Your task to perform on an android device: turn pop-ups off in chrome Image 0: 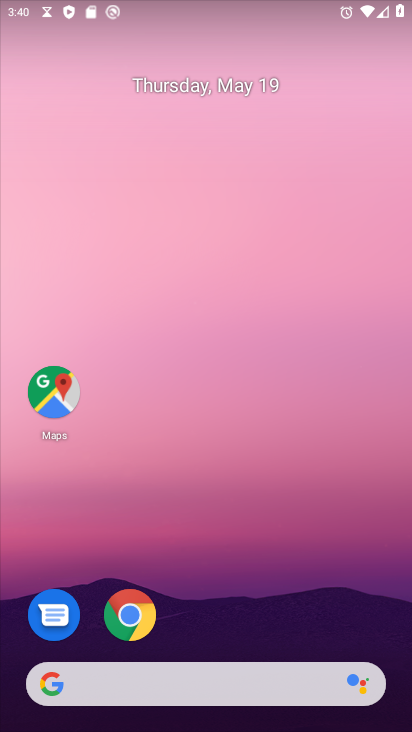
Step 0: drag from (201, 284) to (175, 7)
Your task to perform on an android device: turn pop-ups off in chrome Image 1: 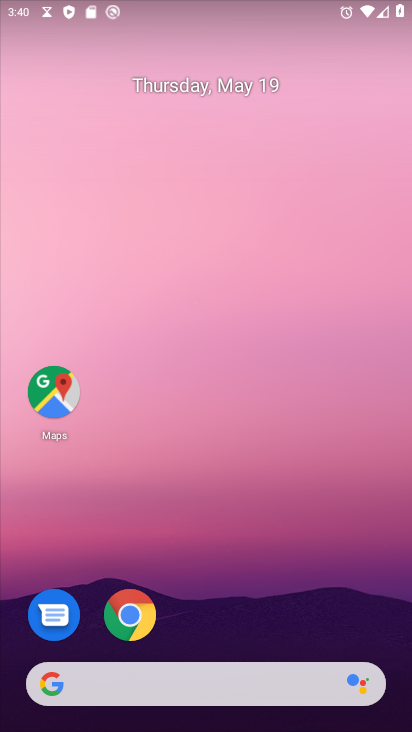
Step 1: drag from (267, 590) to (224, 20)
Your task to perform on an android device: turn pop-ups off in chrome Image 2: 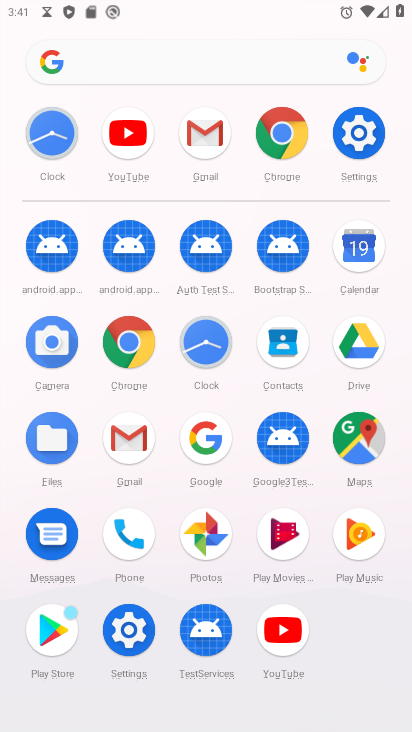
Step 2: click (284, 134)
Your task to perform on an android device: turn pop-ups off in chrome Image 3: 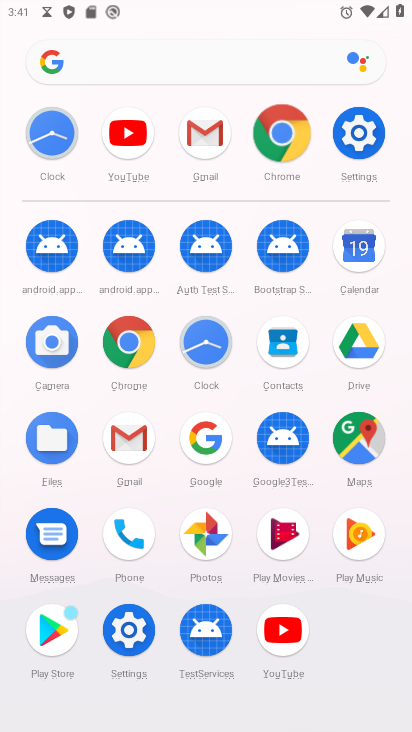
Step 3: click (285, 135)
Your task to perform on an android device: turn pop-ups off in chrome Image 4: 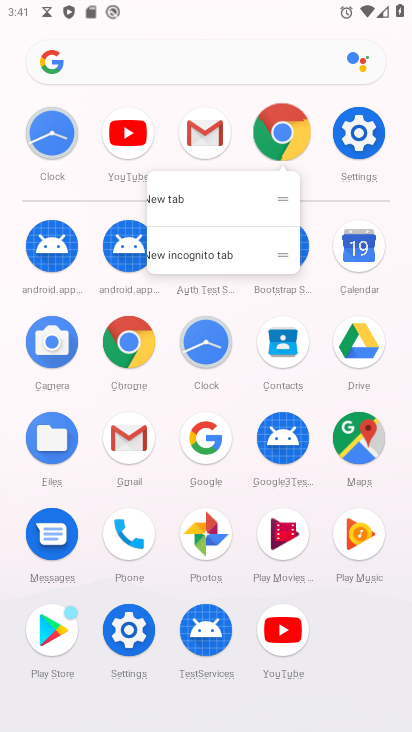
Step 4: click (285, 135)
Your task to perform on an android device: turn pop-ups off in chrome Image 5: 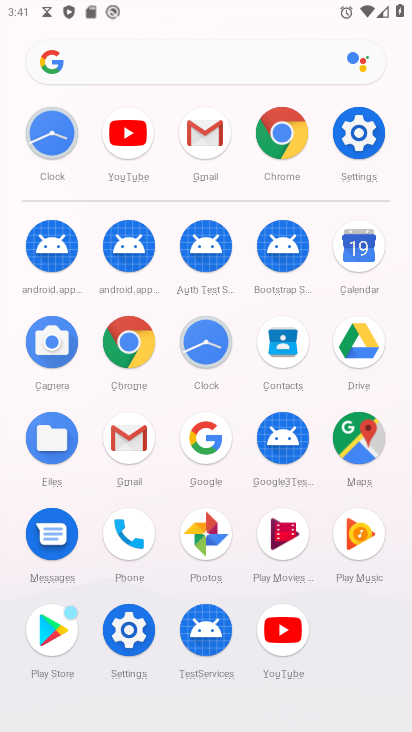
Step 5: click (285, 135)
Your task to perform on an android device: turn pop-ups off in chrome Image 6: 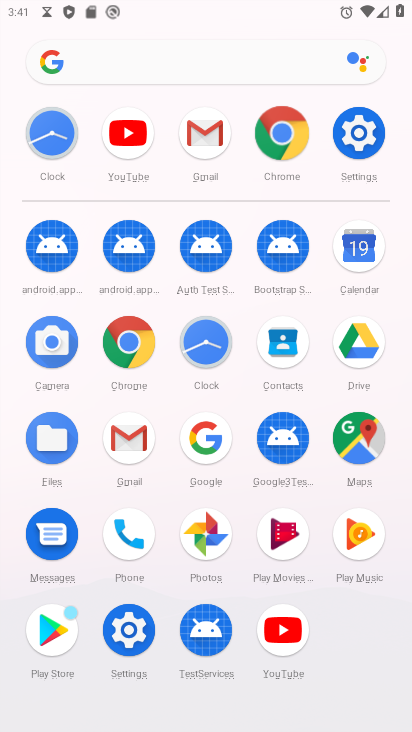
Step 6: click (287, 136)
Your task to perform on an android device: turn pop-ups off in chrome Image 7: 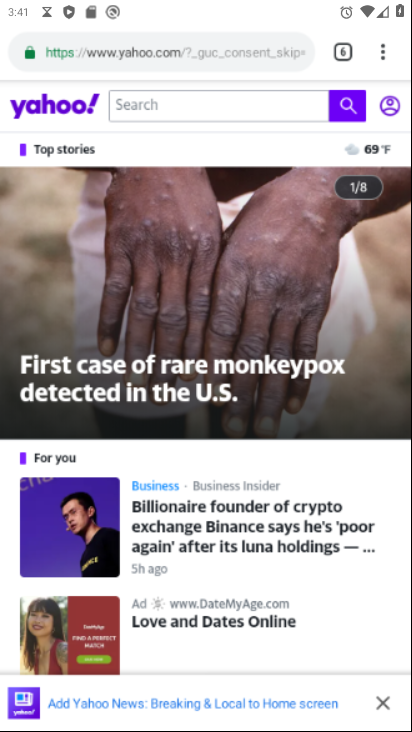
Step 7: click (287, 136)
Your task to perform on an android device: turn pop-ups off in chrome Image 8: 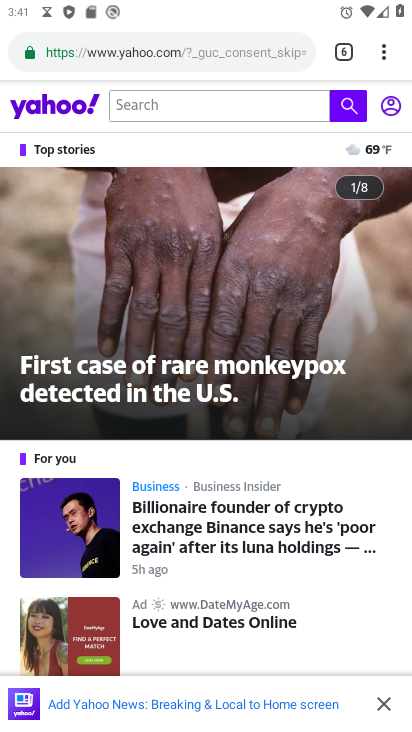
Step 8: drag from (382, 58) to (185, 615)
Your task to perform on an android device: turn pop-ups off in chrome Image 9: 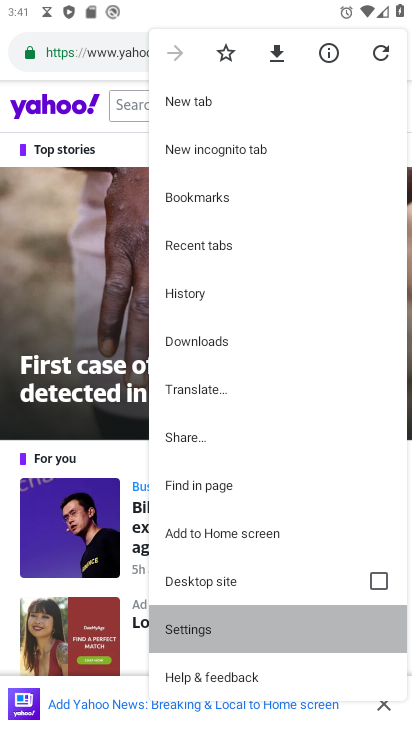
Step 9: click (185, 621)
Your task to perform on an android device: turn pop-ups off in chrome Image 10: 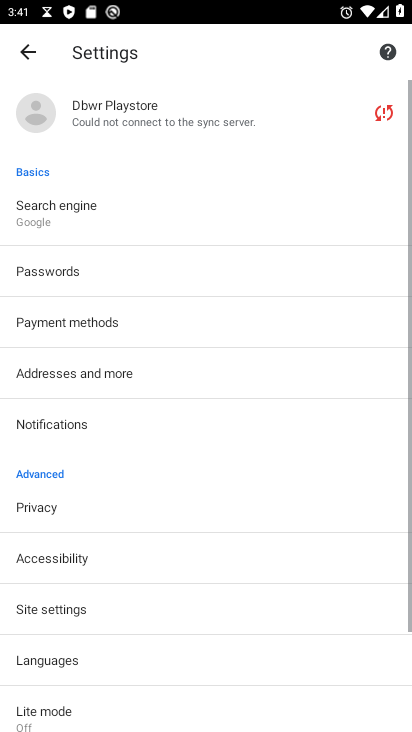
Step 10: drag from (72, 511) to (115, 109)
Your task to perform on an android device: turn pop-ups off in chrome Image 11: 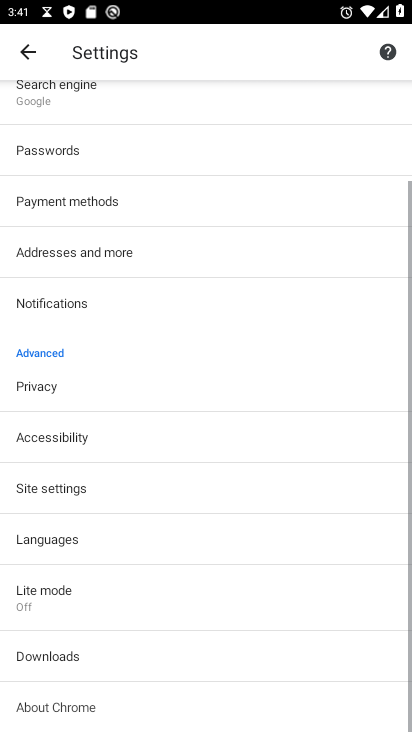
Step 11: drag from (146, 488) to (144, 9)
Your task to perform on an android device: turn pop-ups off in chrome Image 12: 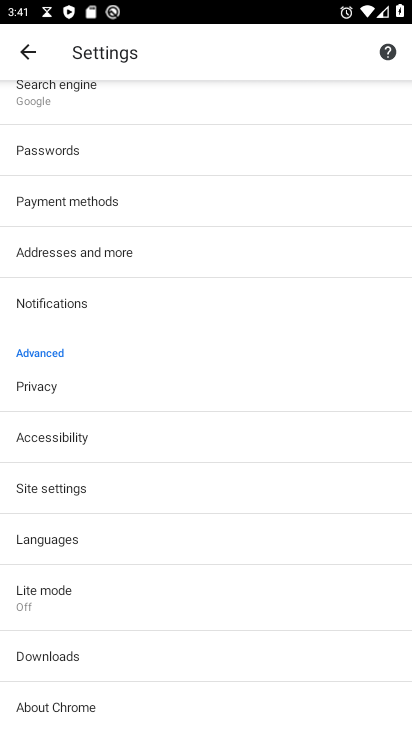
Step 12: click (47, 483)
Your task to perform on an android device: turn pop-ups off in chrome Image 13: 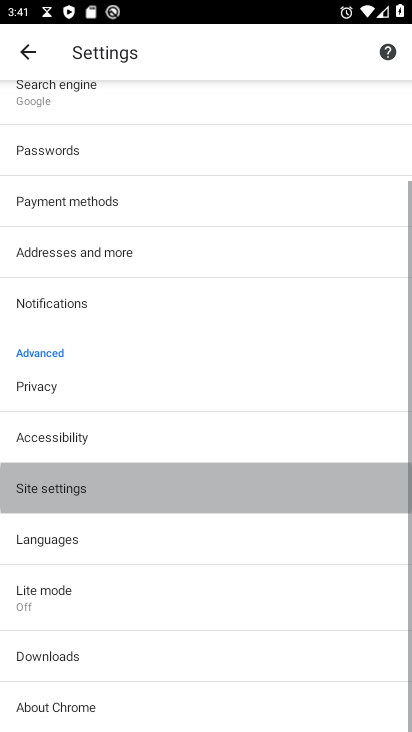
Step 13: click (46, 484)
Your task to perform on an android device: turn pop-ups off in chrome Image 14: 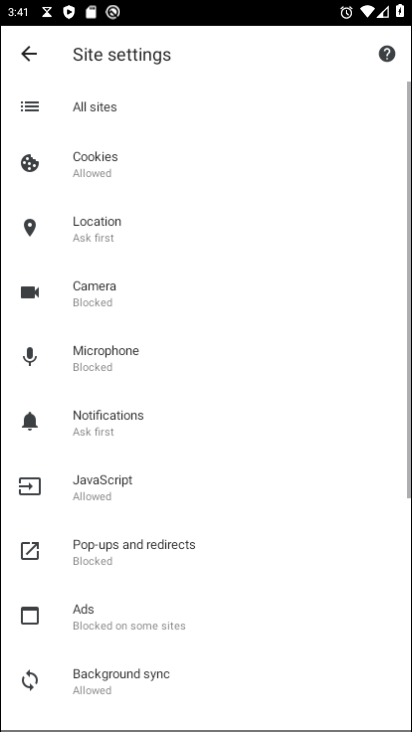
Step 14: click (46, 484)
Your task to perform on an android device: turn pop-ups off in chrome Image 15: 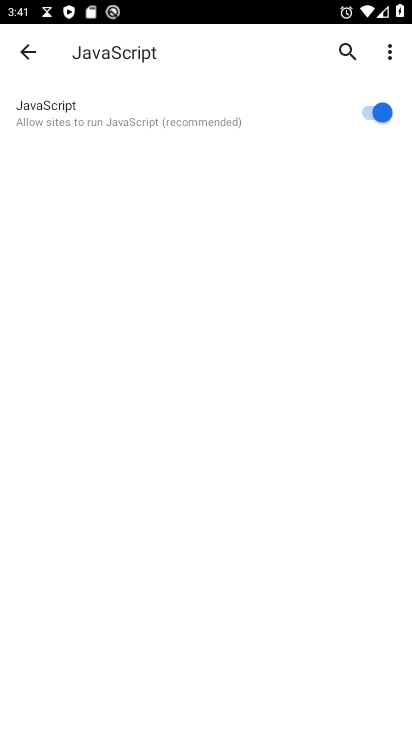
Step 15: click (26, 61)
Your task to perform on an android device: turn pop-ups off in chrome Image 16: 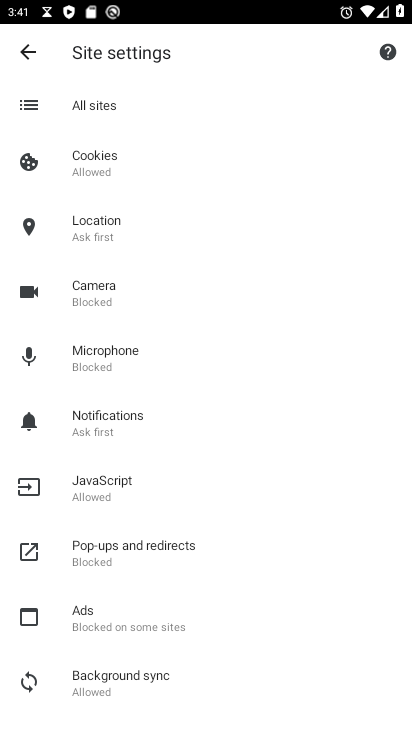
Step 16: click (92, 550)
Your task to perform on an android device: turn pop-ups off in chrome Image 17: 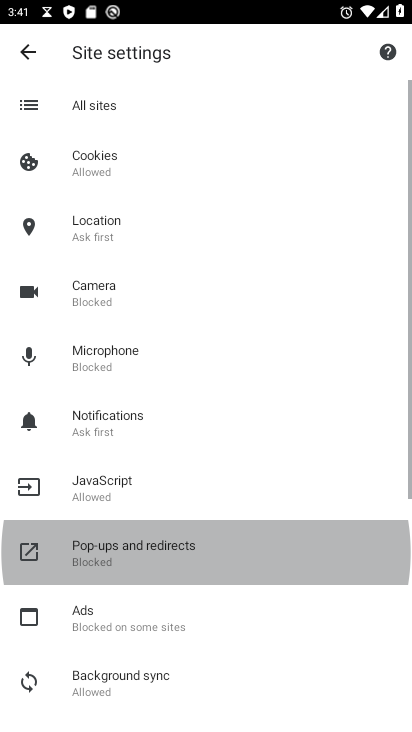
Step 17: click (92, 550)
Your task to perform on an android device: turn pop-ups off in chrome Image 18: 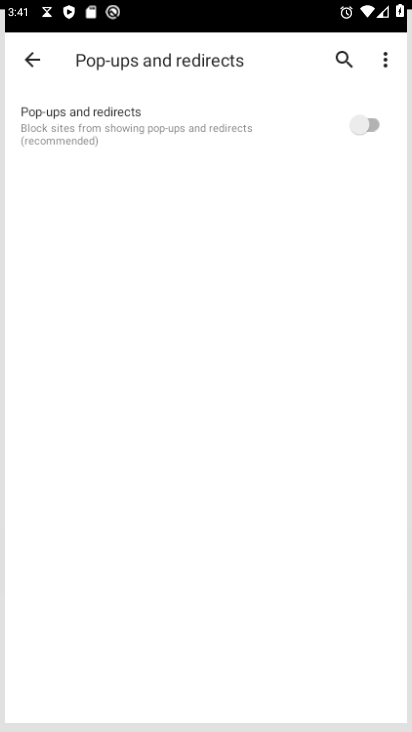
Step 18: click (92, 549)
Your task to perform on an android device: turn pop-ups off in chrome Image 19: 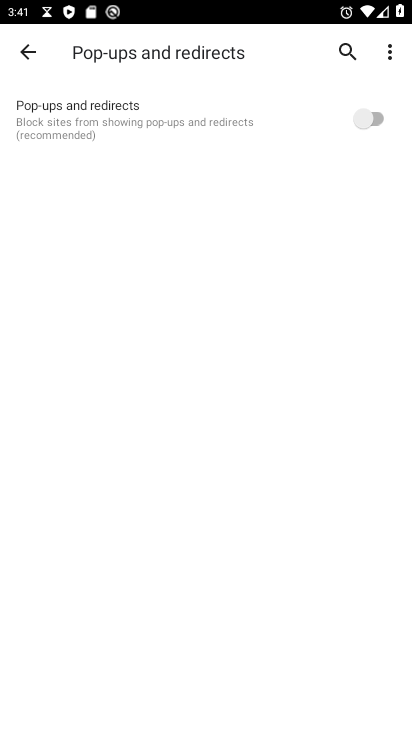
Step 19: click (366, 119)
Your task to perform on an android device: turn pop-ups off in chrome Image 20: 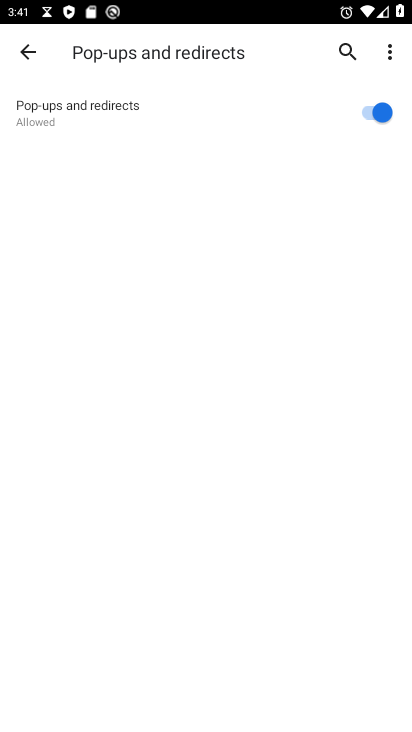
Step 20: click (380, 111)
Your task to perform on an android device: turn pop-ups off in chrome Image 21: 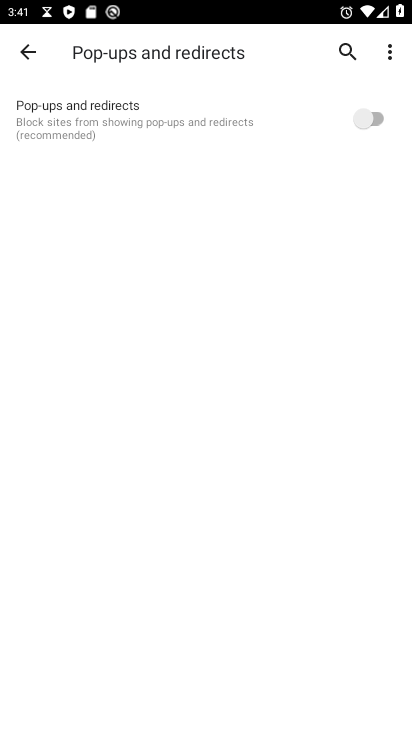
Step 21: task complete